Your task to perform on an android device: change the clock style Image 0: 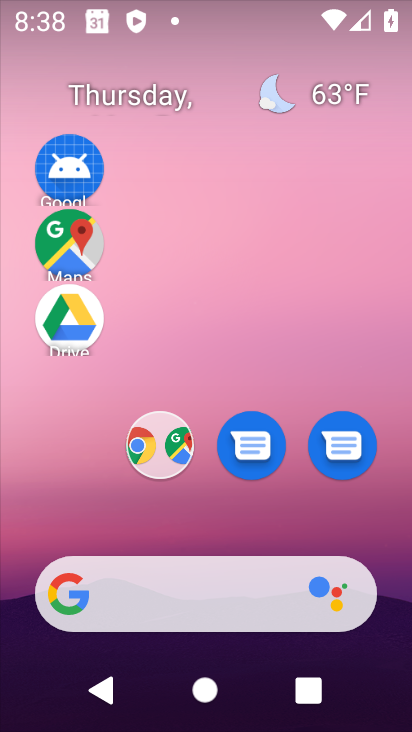
Step 0: drag from (219, 528) to (185, 103)
Your task to perform on an android device: change the clock style Image 1: 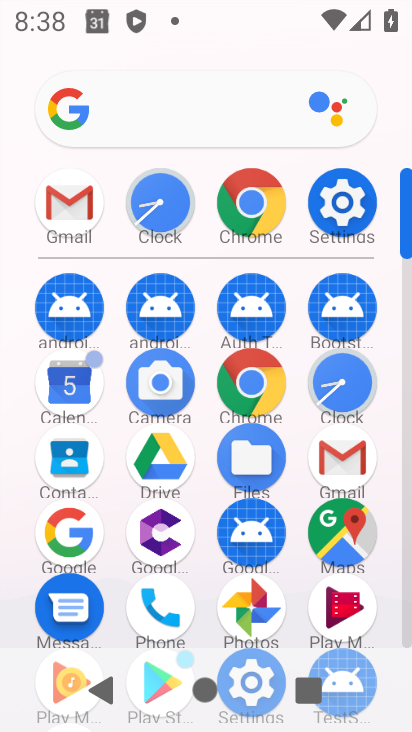
Step 1: click (336, 384)
Your task to perform on an android device: change the clock style Image 2: 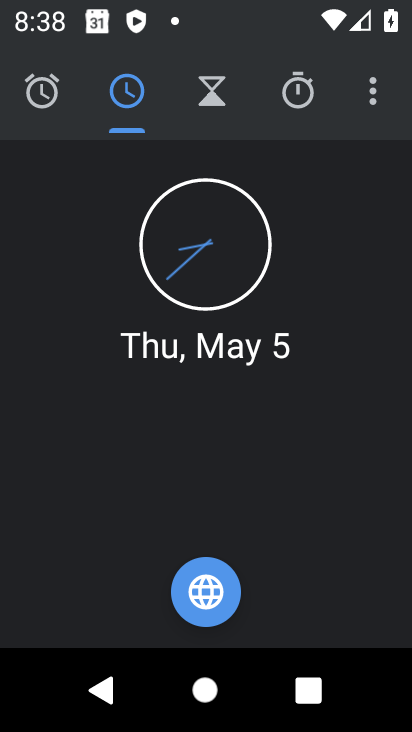
Step 2: click (379, 96)
Your task to perform on an android device: change the clock style Image 3: 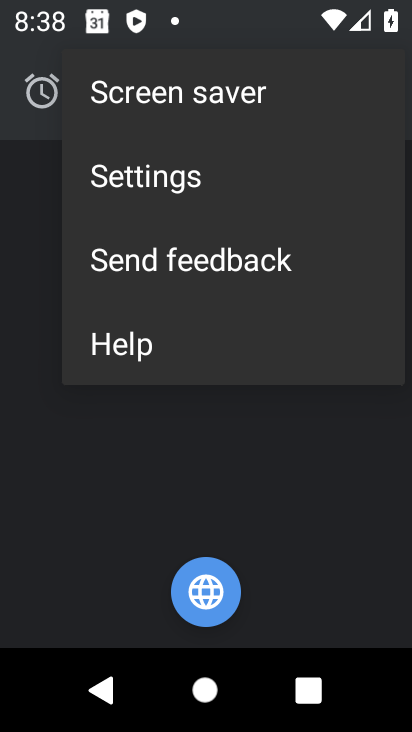
Step 3: click (200, 173)
Your task to perform on an android device: change the clock style Image 4: 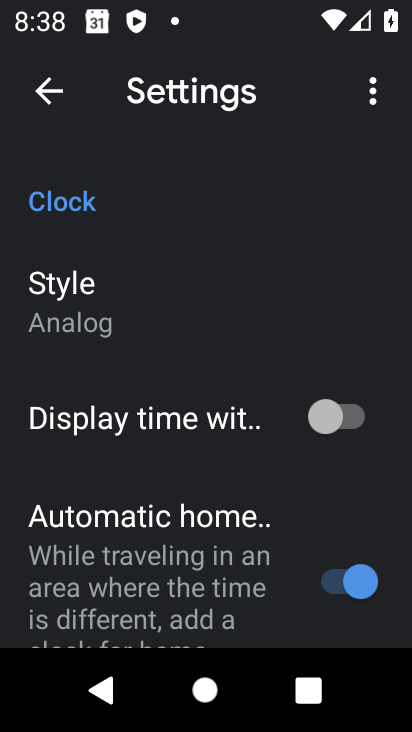
Step 4: click (48, 279)
Your task to perform on an android device: change the clock style Image 5: 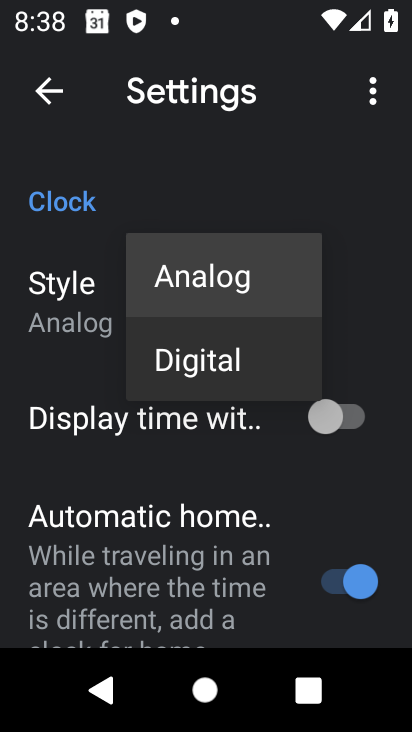
Step 5: click (175, 351)
Your task to perform on an android device: change the clock style Image 6: 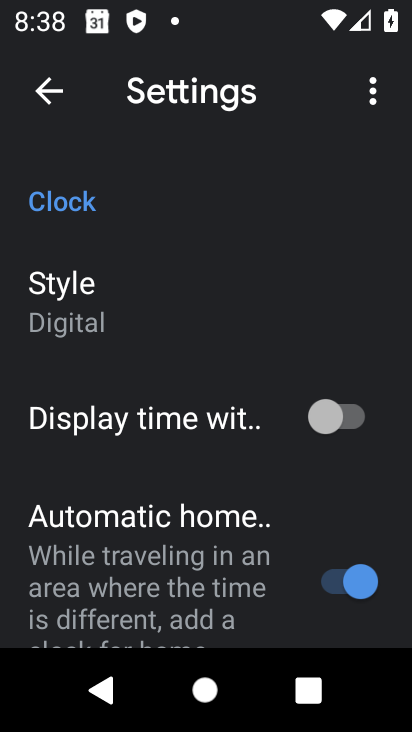
Step 6: task complete